Your task to perform on an android device: toggle translation in the chrome app Image 0: 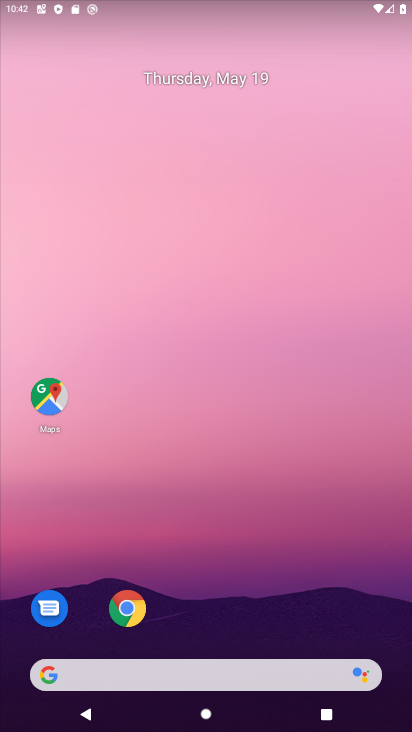
Step 0: click (119, 606)
Your task to perform on an android device: toggle translation in the chrome app Image 1: 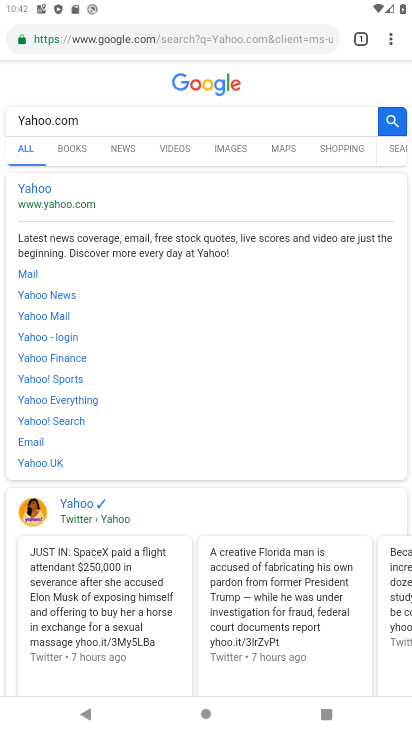
Step 1: click (392, 33)
Your task to perform on an android device: toggle translation in the chrome app Image 2: 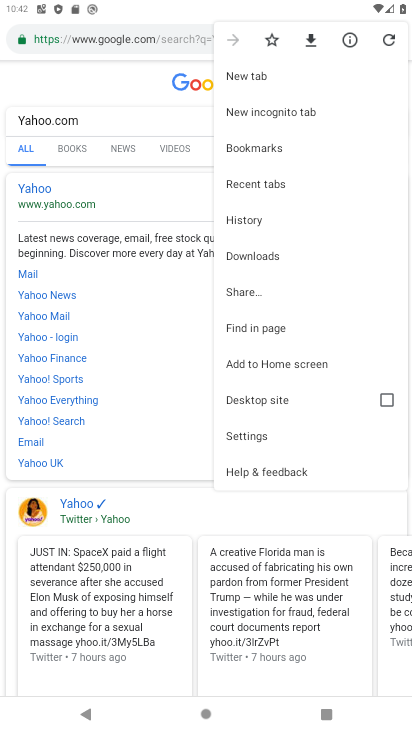
Step 2: click (246, 438)
Your task to perform on an android device: toggle translation in the chrome app Image 3: 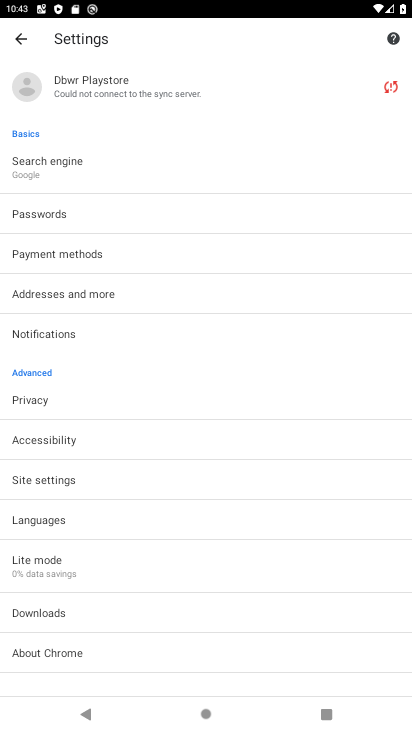
Step 3: drag from (182, 663) to (202, 271)
Your task to perform on an android device: toggle translation in the chrome app Image 4: 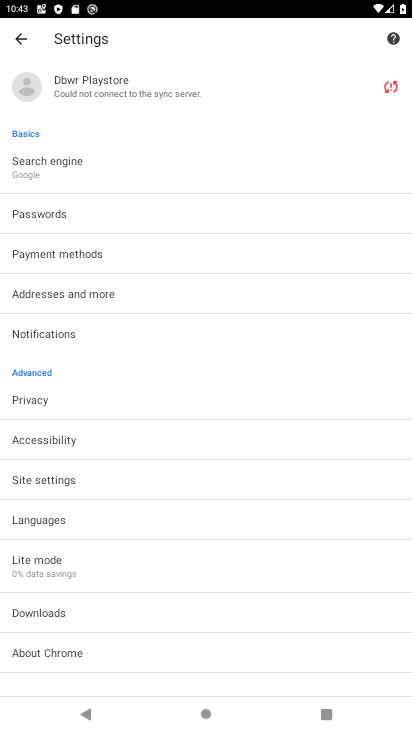
Step 4: click (54, 513)
Your task to perform on an android device: toggle translation in the chrome app Image 5: 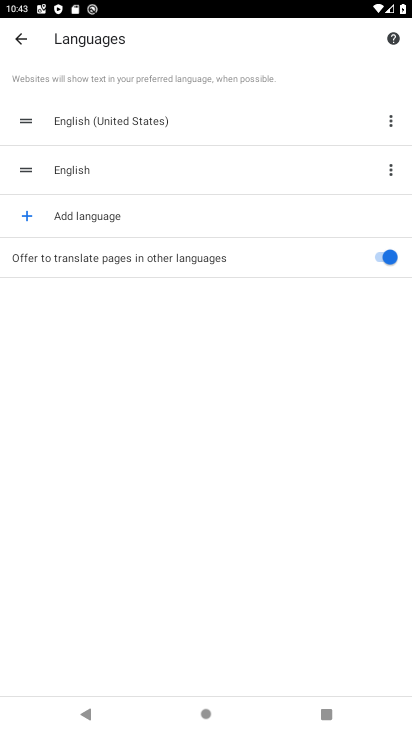
Step 5: click (377, 250)
Your task to perform on an android device: toggle translation in the chrome app Image 6: 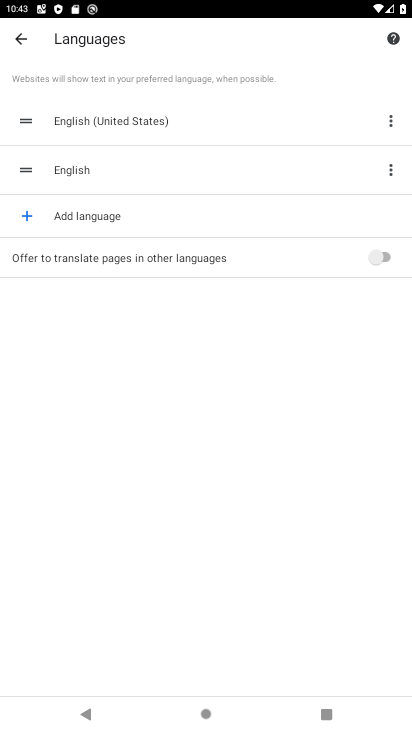
Step 6: task complete